Your task to perform on an android device: Go to privacy settings Image 0: 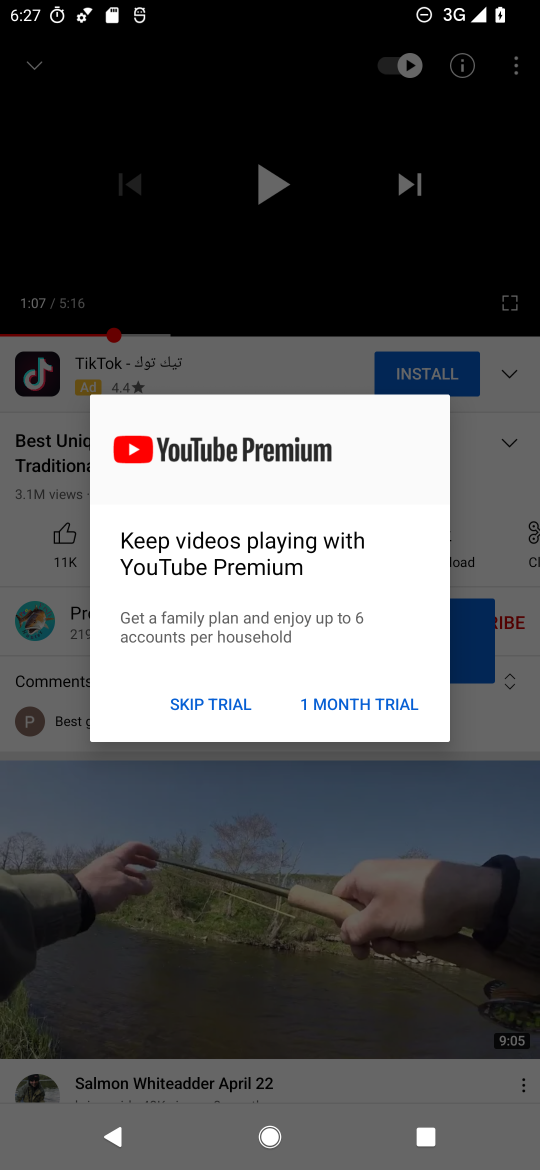
Step 0: press home button
Your task to perform on an android device: Go to privacy settings Image 1: 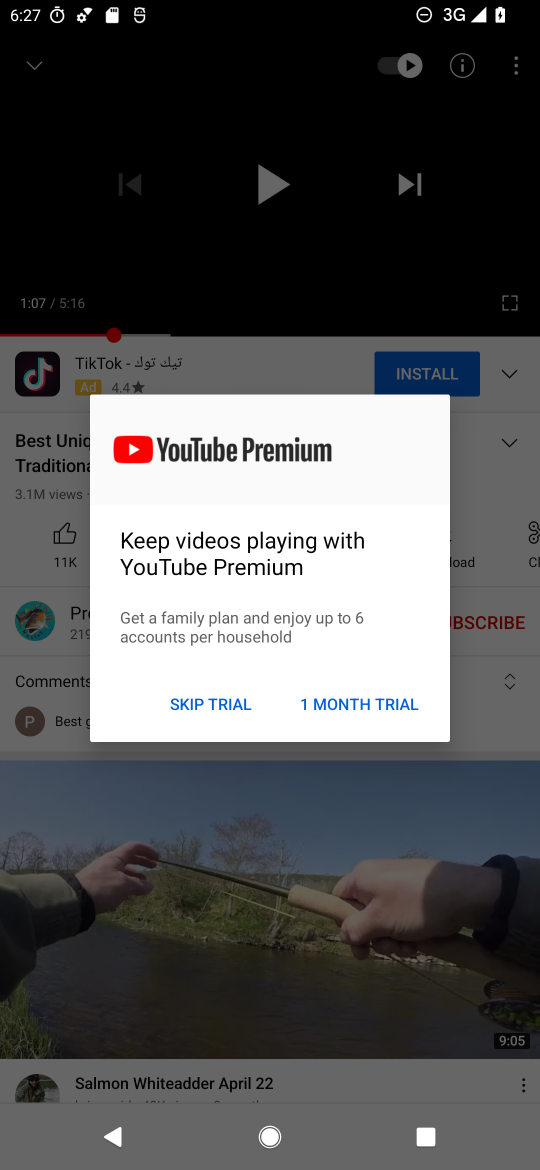
Step 1: press home button
Your task to perform on an android device: Go to privacy settings Image 2: 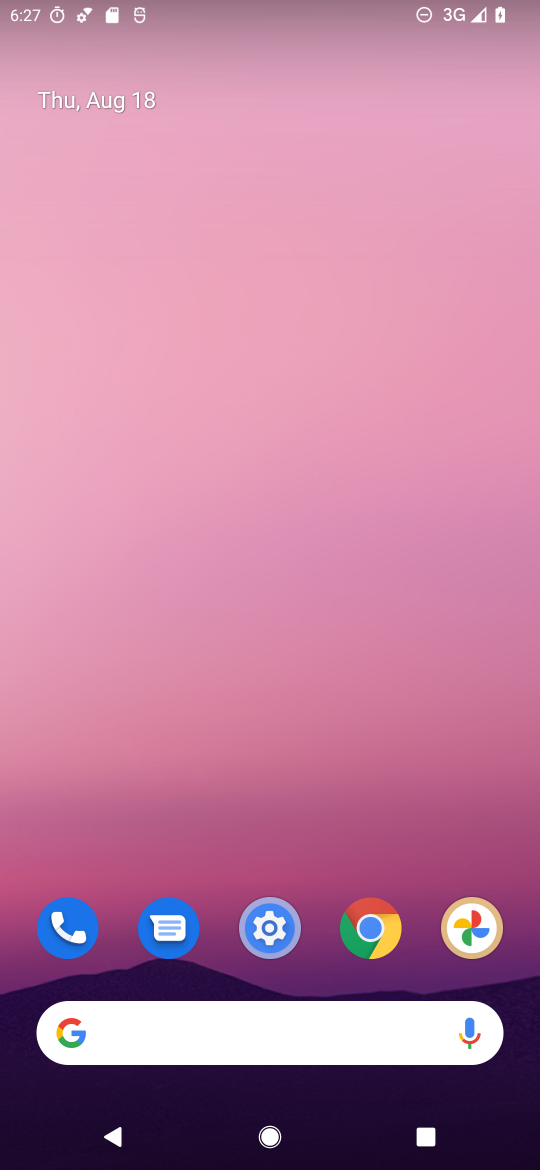
Step 2: drag from (329, 821) to (418, 40)
Your task to perform on an android device: Go to privacy settings Image 3: 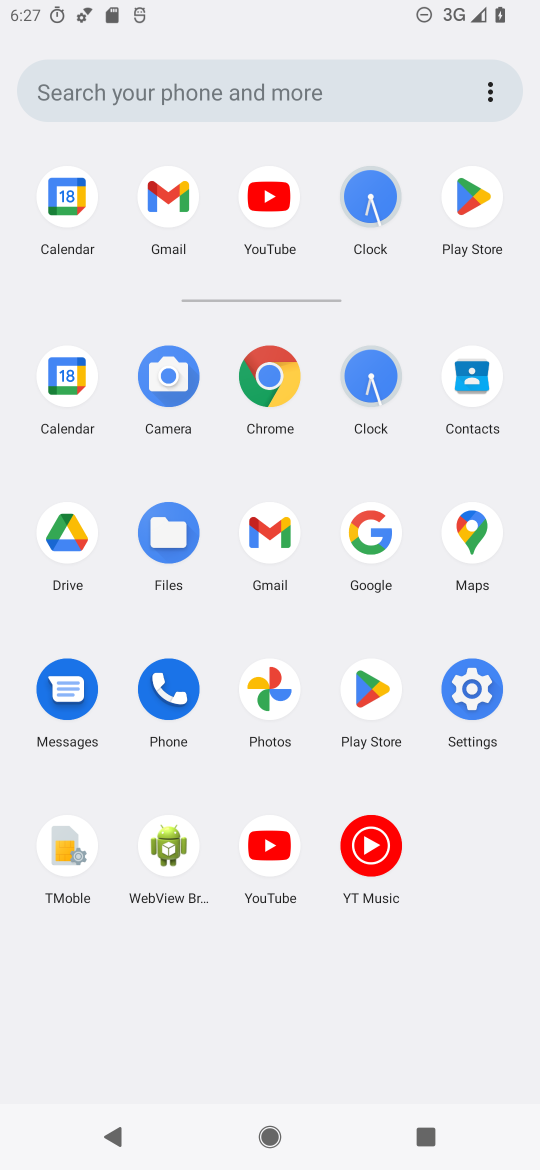
Step 3: click (471, 703)
Your task to perform on an android device: Go to privacy settings Image 4: 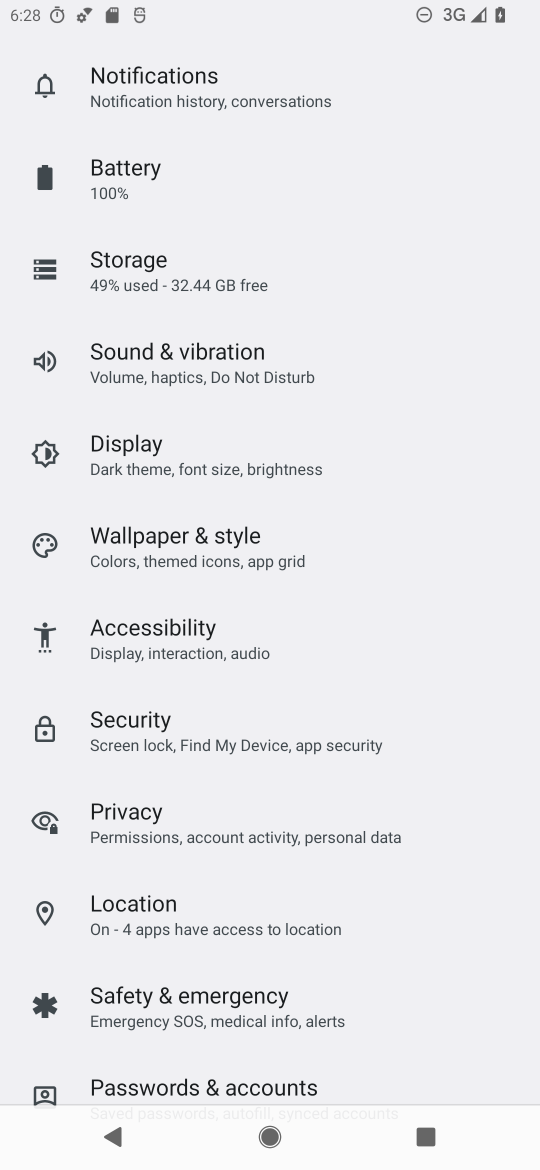
Step 4: click (176, 835)
Your task to perform on an android device: Go to privacy settings Image 5: 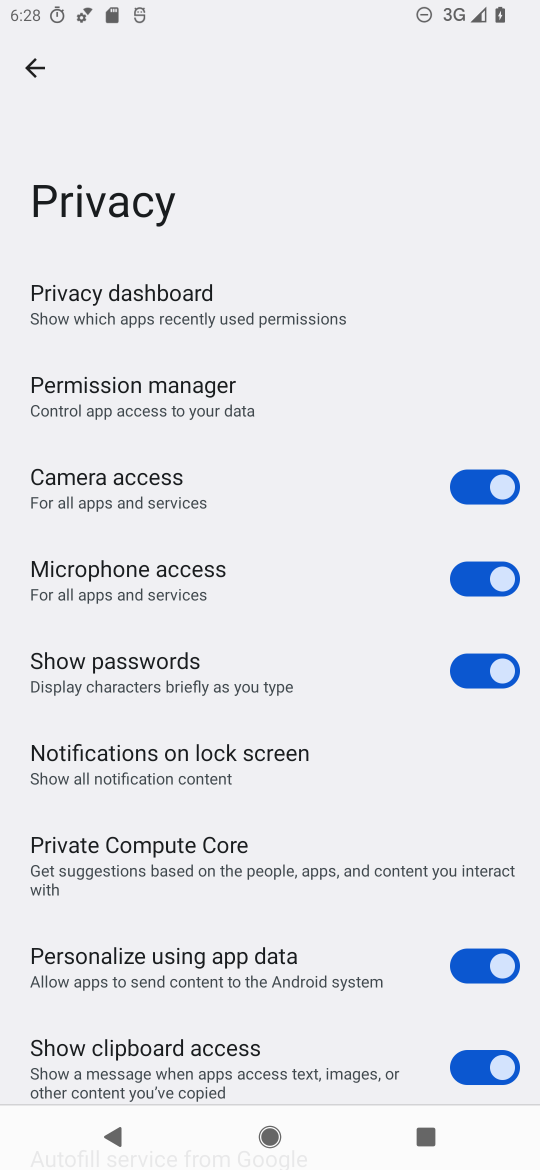
Step 5: task complete